Your task to perform on an android device: turn on location history Image 0: 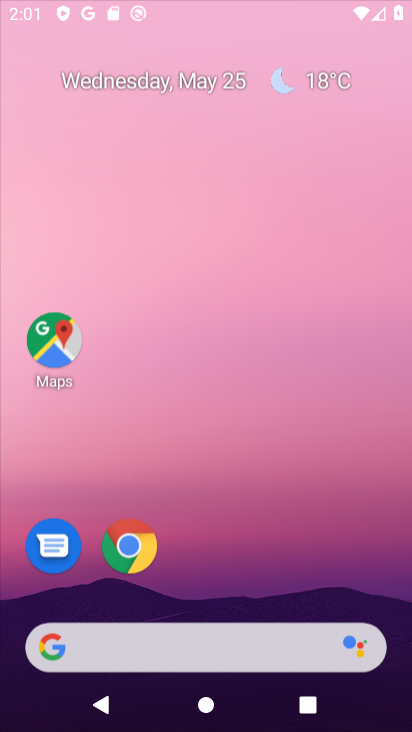
Step 0: click (271, 361)
Your task to perform on an android device: turn on location history Image 1: 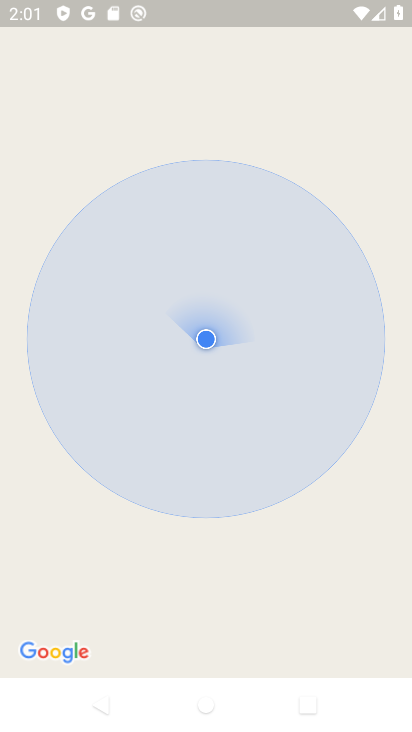
Step 1: press home button
Your task to perform on an android device: turn on location history Image 2: 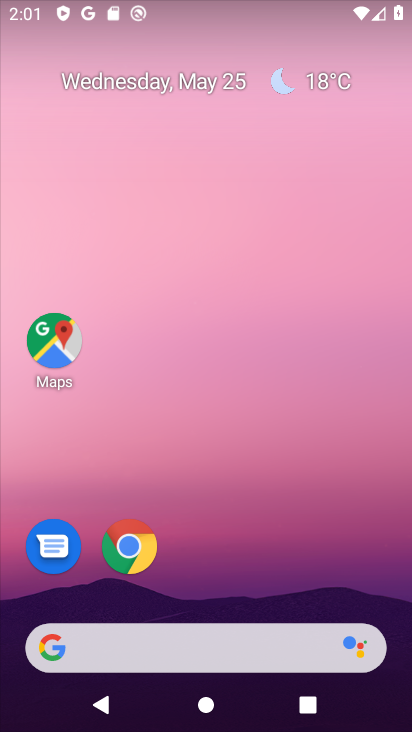
Step 2: drag from (237, 571) to (286, 0)
Your task to perform on an android device: turn on location history Image 3: 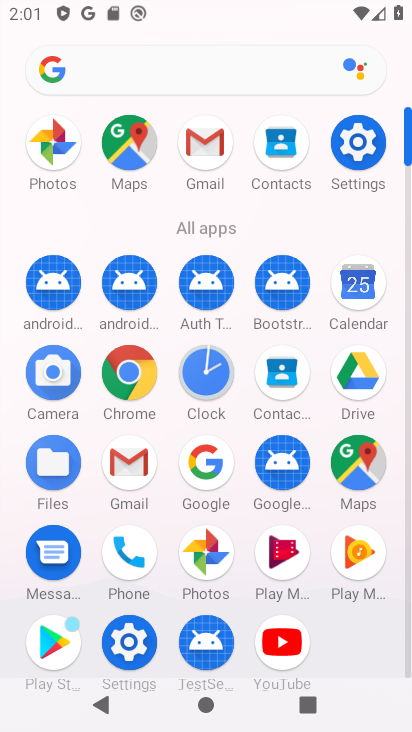
Step 3: click (125, 646)
Your task to perform on an android device: turn on location history Image 4: 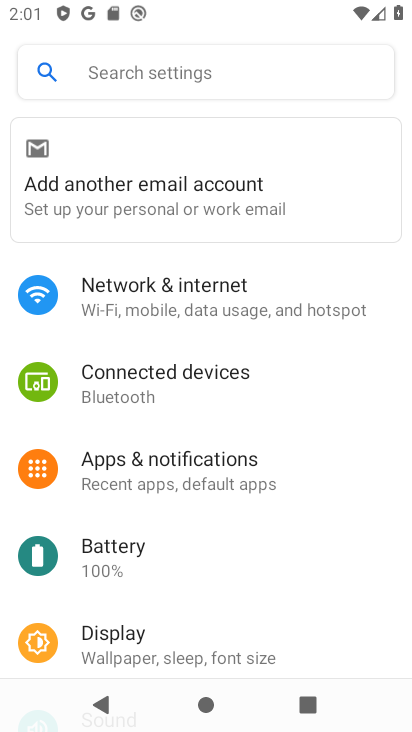
Step 4: drag from (183, 560) to (208, 299)
Your task to perform on an android device: turn on location history Image 5: 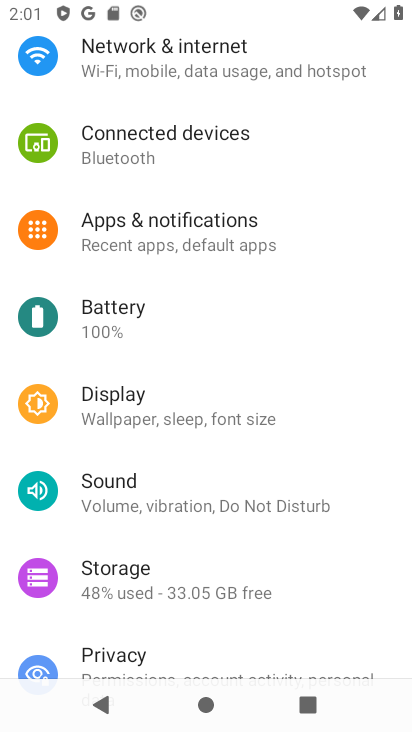
Step 5: drag from (148, 560) to (189, 252)
Your task to perform on an android device: turn on location history Image 6: 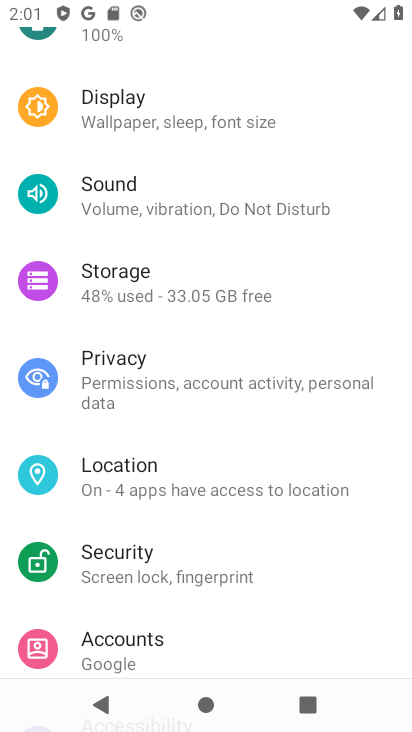
Step 6: click (166, 478)
Your task to perform on an android device: turn on location history Image 7: 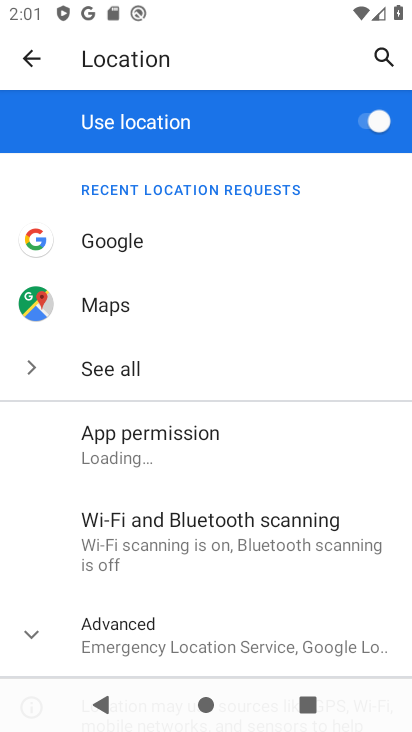
Step 7: drag from (142, 503) to (184, 208)
Your task to perform on an android device: turn on location history Image 8: 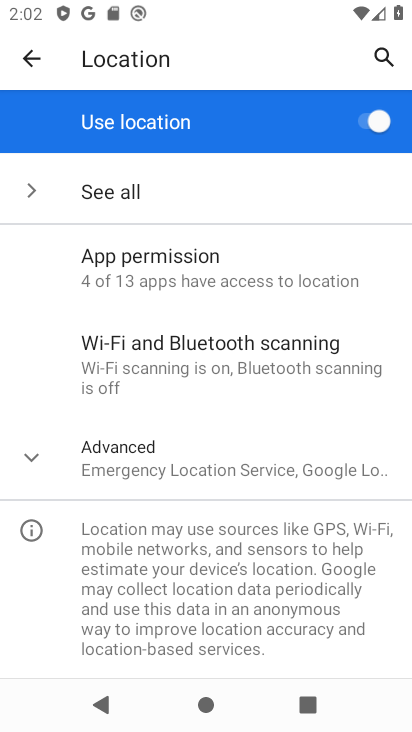
Step 8: click (225, 473)
Your task to perform on an android device: turn on location history Image 9: 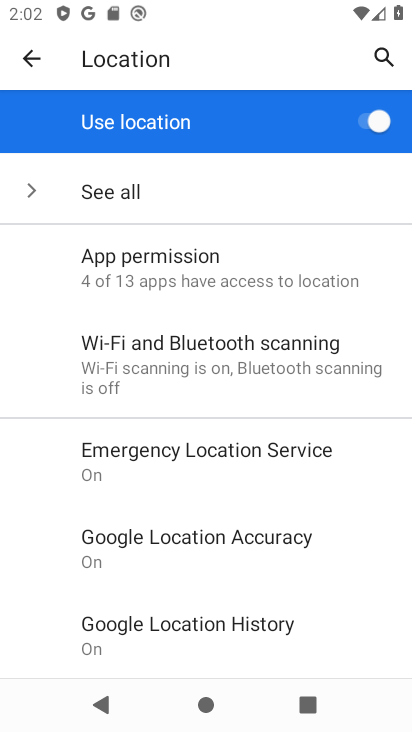
Step 9: drag from (196, 575) to (221, 431)
Your task to perform on an android device: turn on location history Image 10: 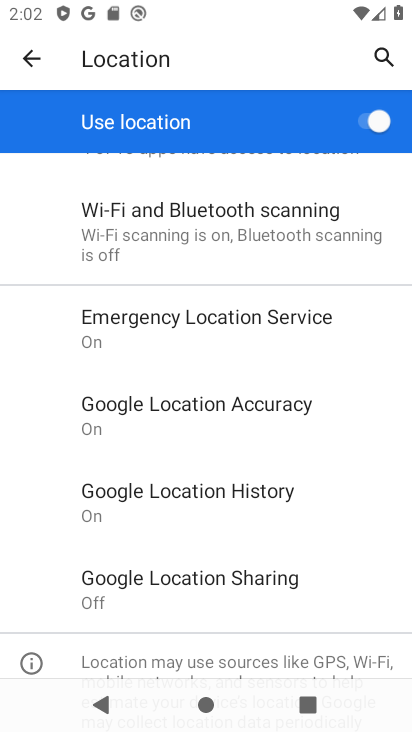
Step 10: click (230, 496)
Your task to perform on an android device: turn on location history Image 11: 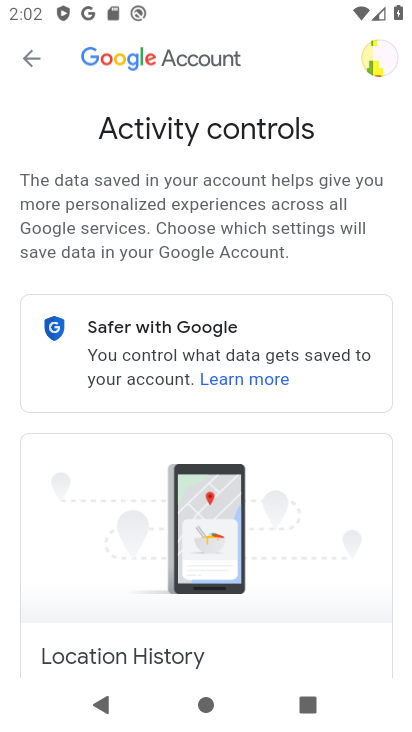
Step 11: task complete